Your task to perform on an android device: Search for Mexican restaurants on Maps Image 0: 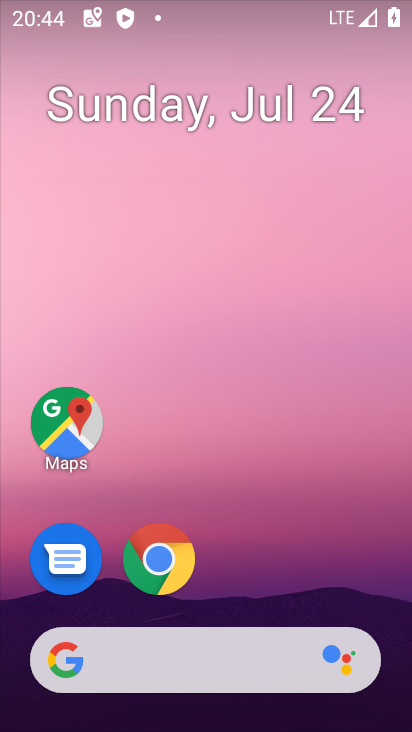
Step 0: press home button
Your task to perform on an android device: Search for Mexican restaurants on Maps Image 1: 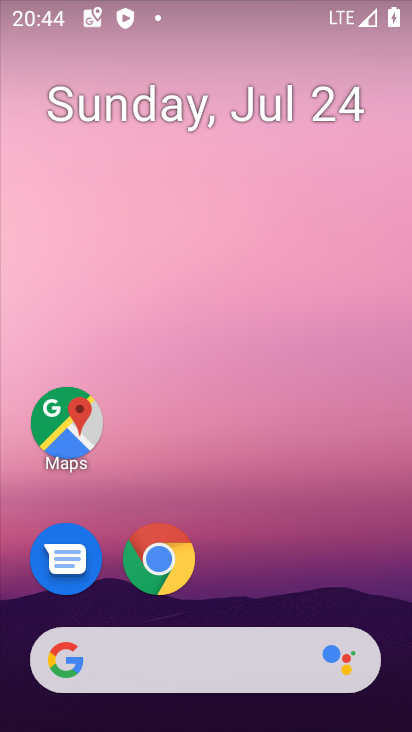
Step 1: drag from (377, 543) to (393, 82)
Your task to perform on an android device: Search for Mexican restaurants on Maps Image 2: 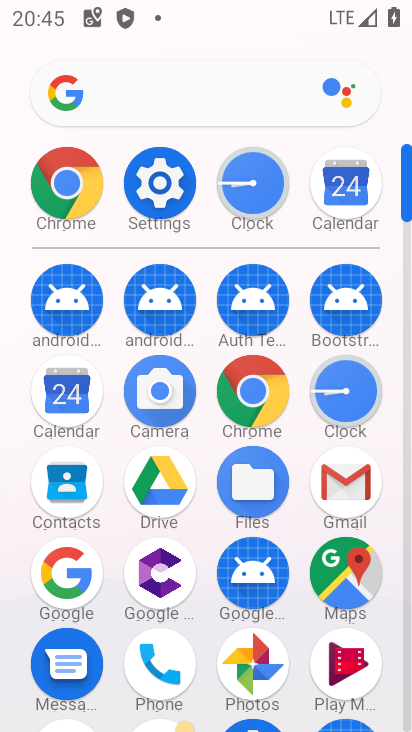
Step 2: click (352, 572)
Your task to perform on an android device: Search for Mexican restaurants on Maps Image 3: 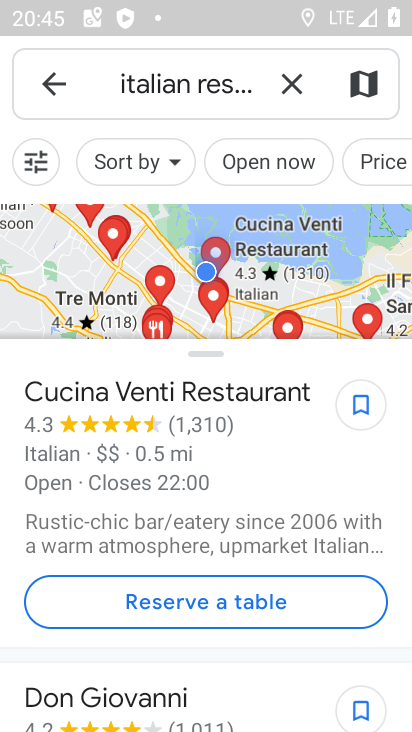
Step 3: press back button
Your task to perform on an android device: Search for Mexican restaurants on Maps Image 4: 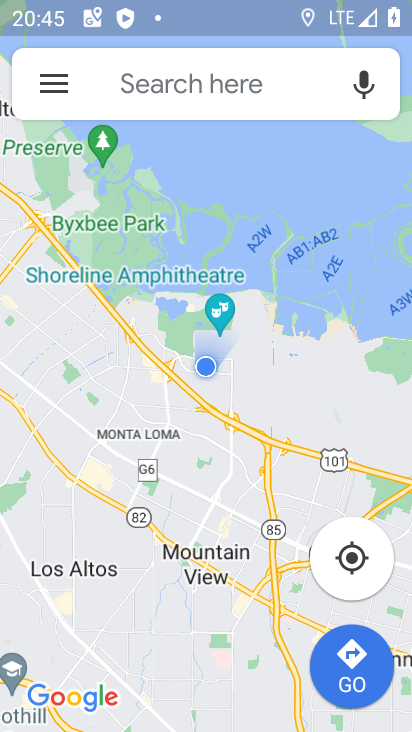
Step 4: click (288, 83)
Your task to perform on an android device: Search for Mexican restaurants on Maps Image 5: 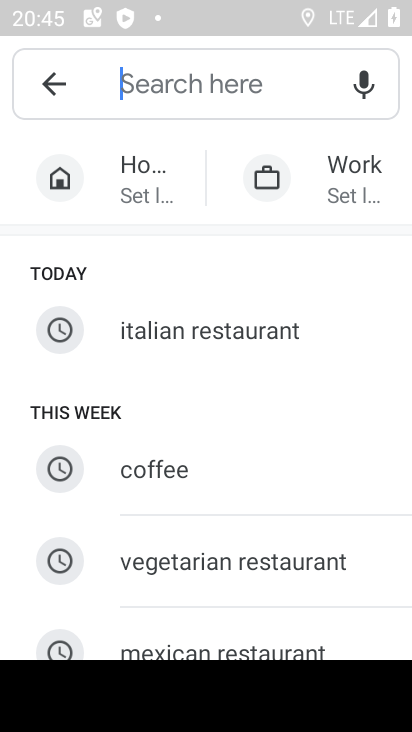
Step 5: type "mexcian restaurants"
Your task to perform on an android device: Search for Mexican restaurants on Maps Image 6: 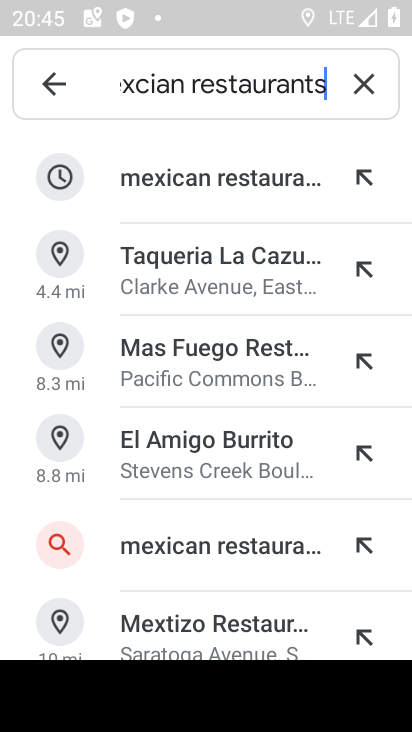
Step 6: click (316, 200)
Your task to perform on an android device: Search for Mexican restaurants on Maps Image 7: 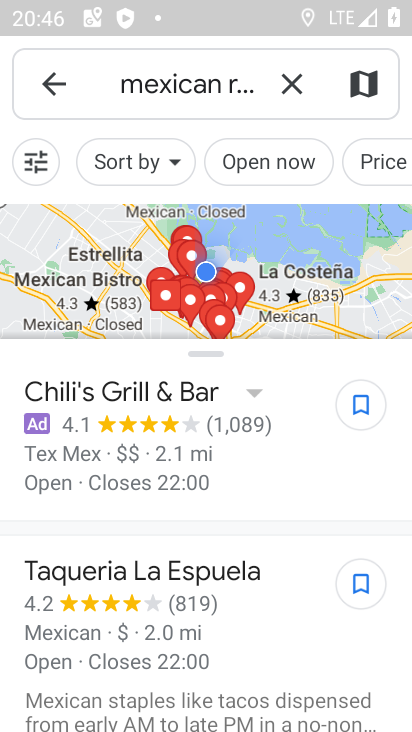
Step 7: task complete